Your task to perform on an android device: uninstall "WhatsApp Messenger" Image 0: 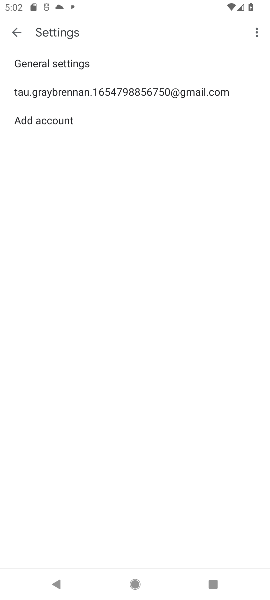
Step 0: press home button
Your task to perform on an android device: uninstall "WhatsApp Messenger" Image 1: 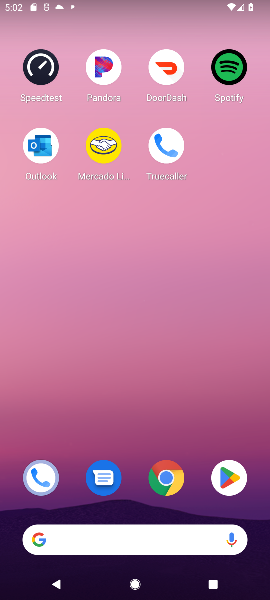
Step 1: click (231, 474)
Your task to perform on an android device: uninstall "WhatsApp Messenger" Image 2: 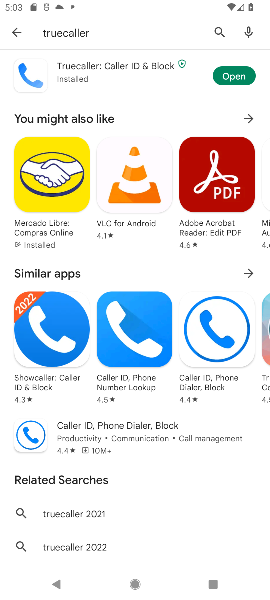
Step 2: click (218, 30)
Your task to perform on an android device: uninstall "WhatsApp Messenger" Image 3: 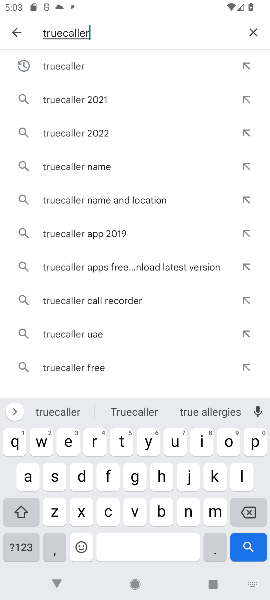
Step 3: click (252, 33)
Your task to perform on an android device: uninstall "WhatsApp Messenger" Image 4: 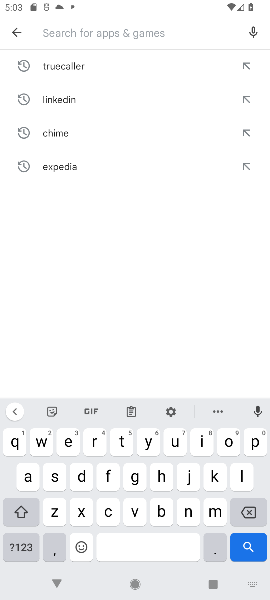
Step 4: click (40, 442)
Your task to perform on an android device: uninstall "WhatsApp Messenger" Image 5: 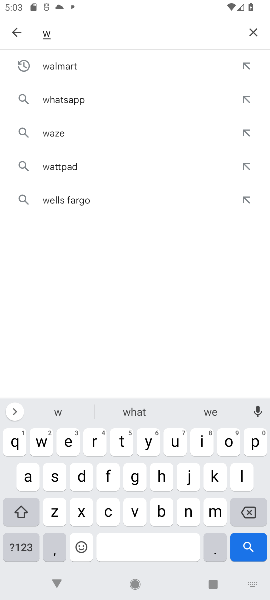
Step 5: click (160, 475)
Your task to perform on an android device: uninstall "WhatsApp Messenger" Image 6: 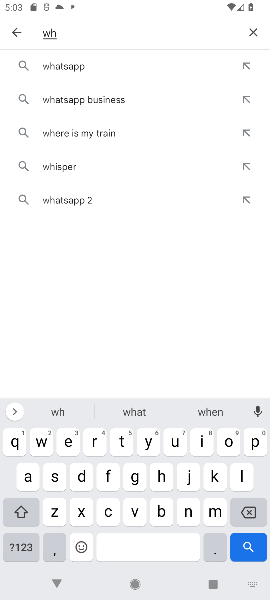
Step 6: click (84, 68)
Your task to perform on an android device: uninstall "WhatsApp Messenger" Image 7: 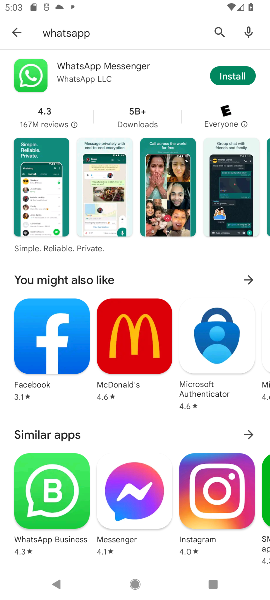
Step 7: click (38, 79)
Your task to perform on an android device: uninstall "WhatsApp Messenger" Image 8: 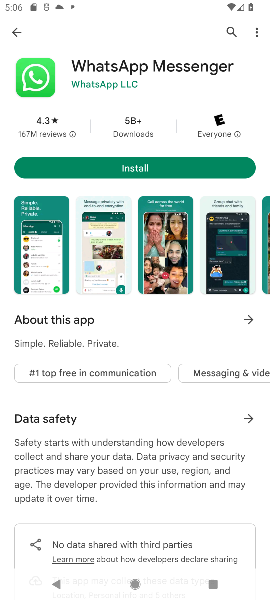
Step 8: task complete